Your task to perform on an android device: turn off translation in the chrome app Image 0: 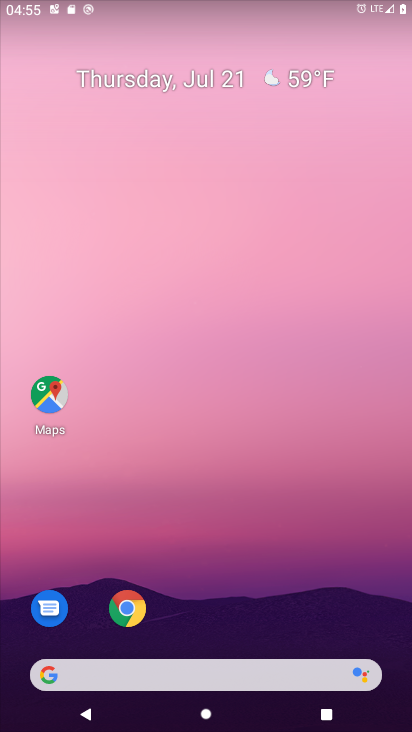
Step 0: drag from (261, 674) to (360, 180)
Your task to perform on an android device: turn off translation in the chrome app Image 1: 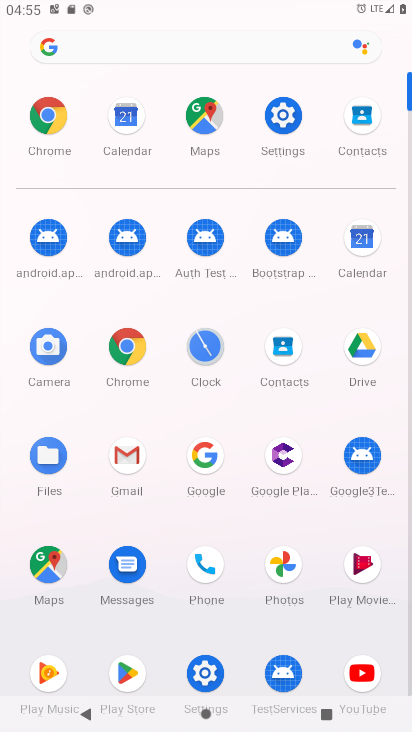
Step 1: click (127, 350)
Your task to perform on an android device: turn off translation in the chrome app Image 2: 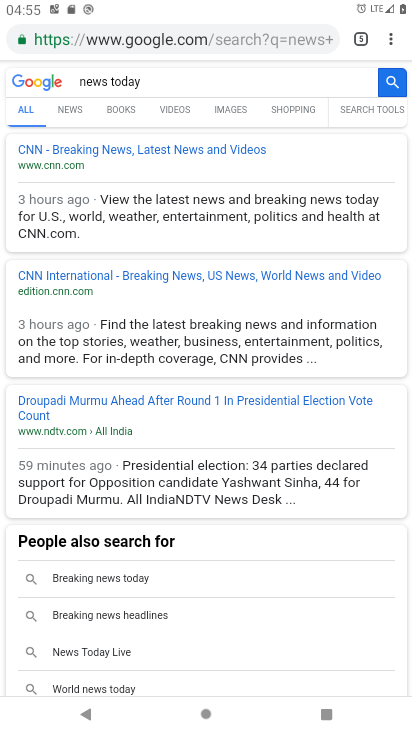
Step 2: drag from (395, 30) to (288, 441)
Your task to perform on an android device: turn off translation in the chrome app Image 3: 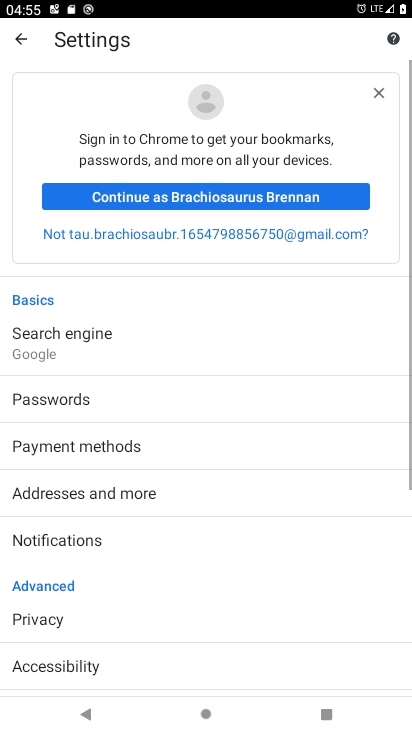
Step 3: drag from (204, 649) to (234, 308)
Your task to perform on an android device: turn off translation in the chrome app Image 4: 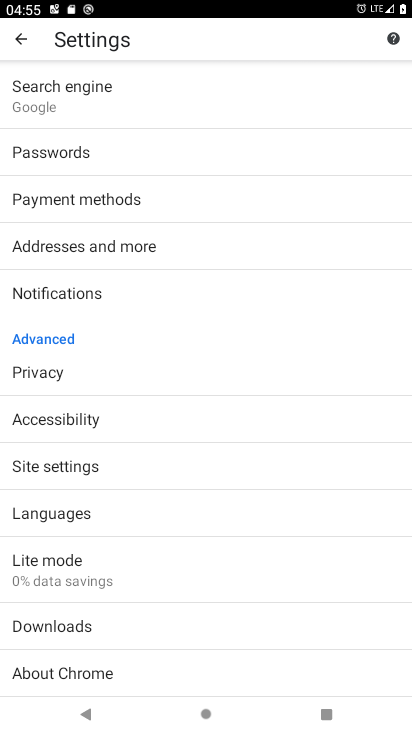
Step 4: click (98, 516)
Your task to perform on an android device: turn off translation in the chrome app Image 5: 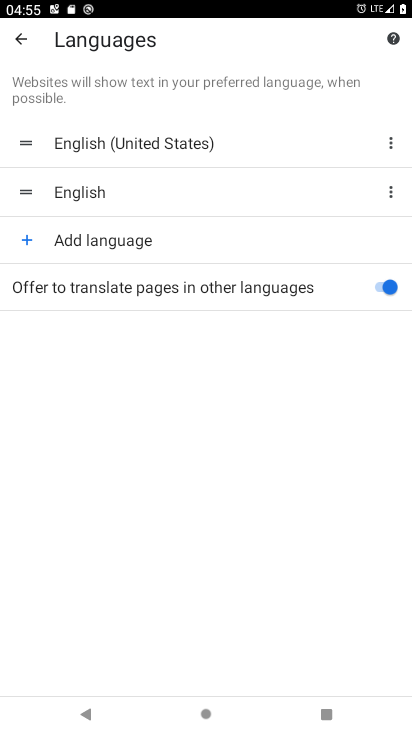
Step 5: click (382, 284)
Your task to perform on an android device: turn off translation in the chrome app Image 6: 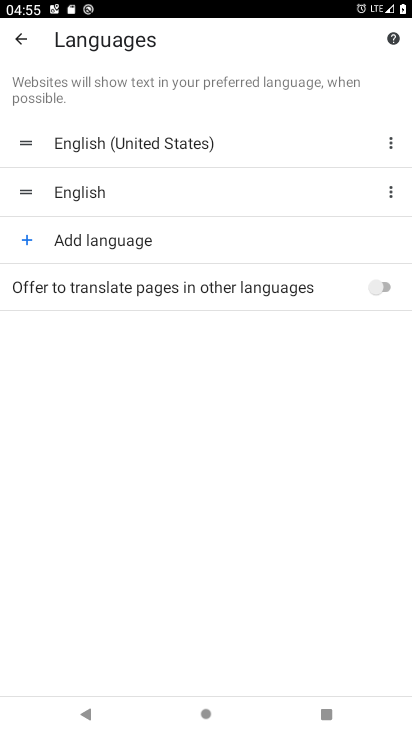
Step 6: task complete